Your task to perform on an android device: Open Google Image 0: 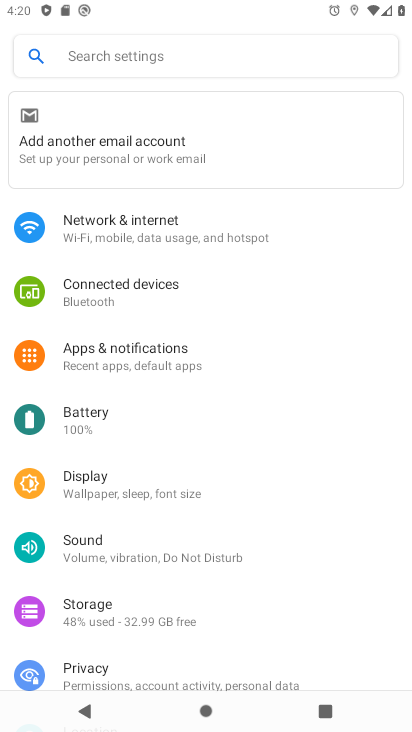
Step 0: press home button
Your task to perform on an android device: Open Google Image 1: 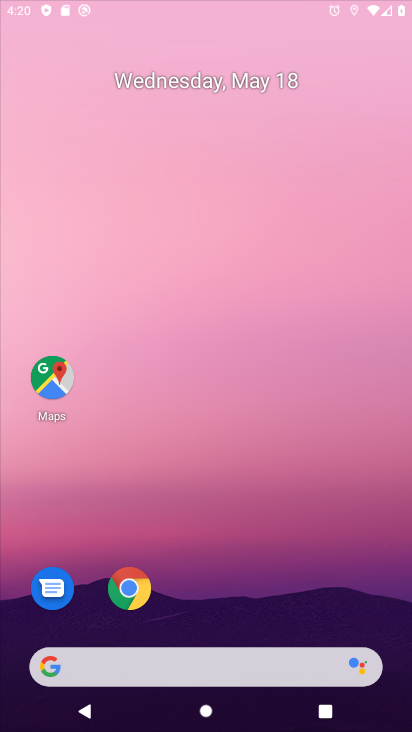
Step 1: drag from (218, 475) to (261, 21)
Your task to perform on an android device: Open Google Image 2: 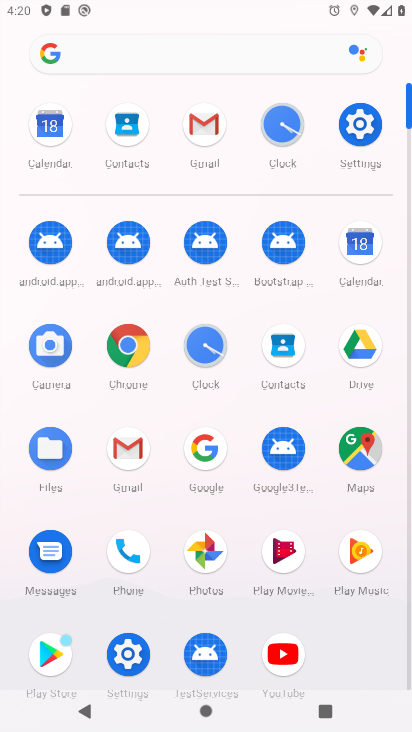
Step 2: click (207, 450)
Your task to perform on an android device: Open Google Image 3: 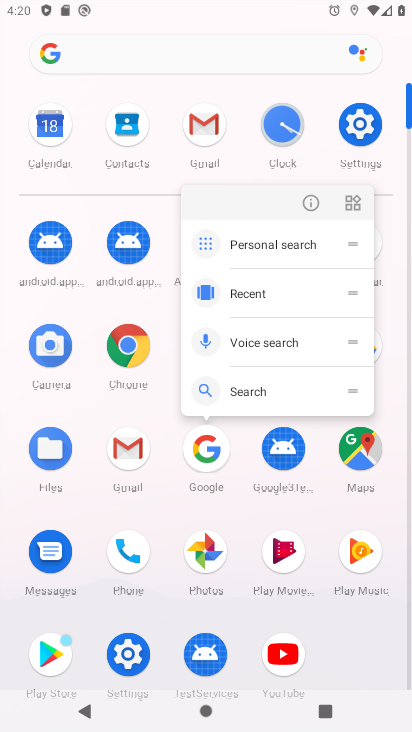
Step 3: click (207, 450)
Your task to perform on an android device: Open Google Image 4: 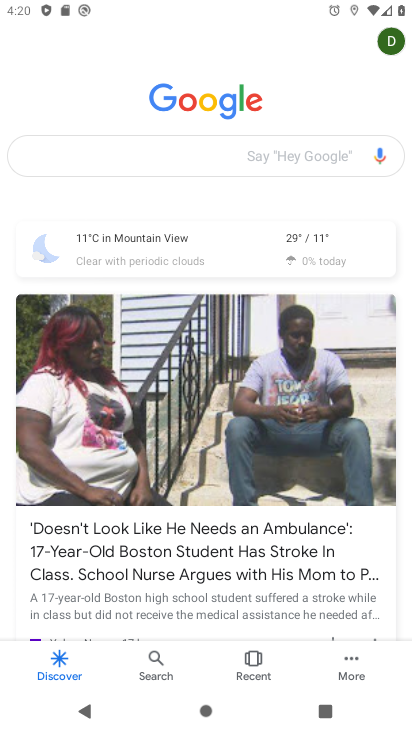
Step 4: task complete